Your task to perform on an android device: Open Chrome and go to the settings page Image 0: 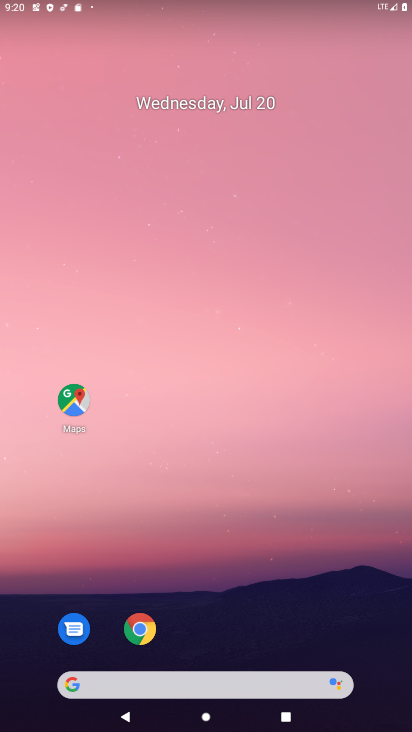
Step 0: click (138, 632)
Your task to perform on an android device: Open Chrome and go to the settings page Image 1: 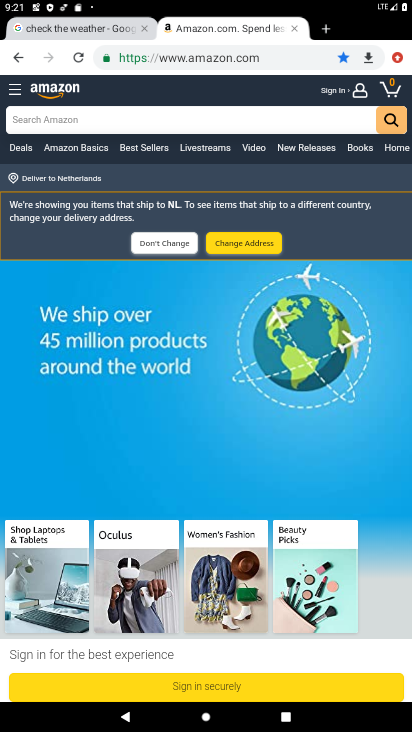
Step 1: task complete